Your task to perform on an android device: Go to sound settings Image 0: 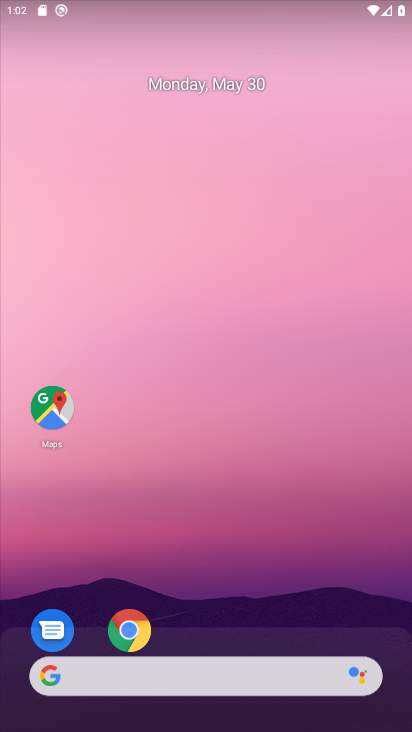
Step 0: drag from (172, 683) to (345, 152)
Your task to perform on an android device: Go to sound settings Image 1: 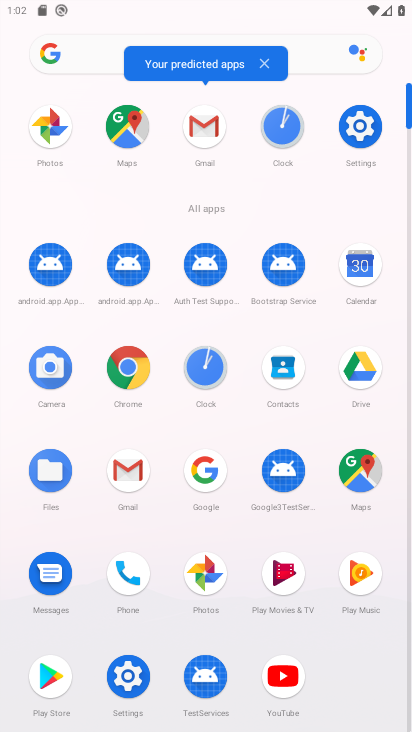
Step 1: click (355, 133)
Your task to perform on an android device: Go to sound settings Image 2: 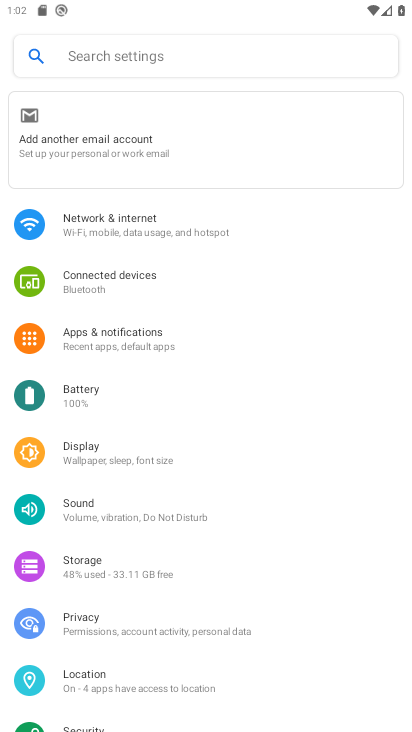
Step 2: click (137, 505)
Your task to perform on an android device: Go to sound settings Image 3: 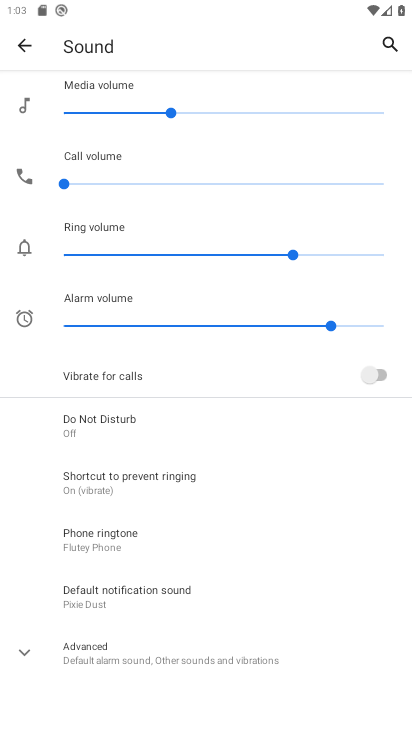
Step 3: task complete